Your task to perform on an android device: Check the news Image 0: 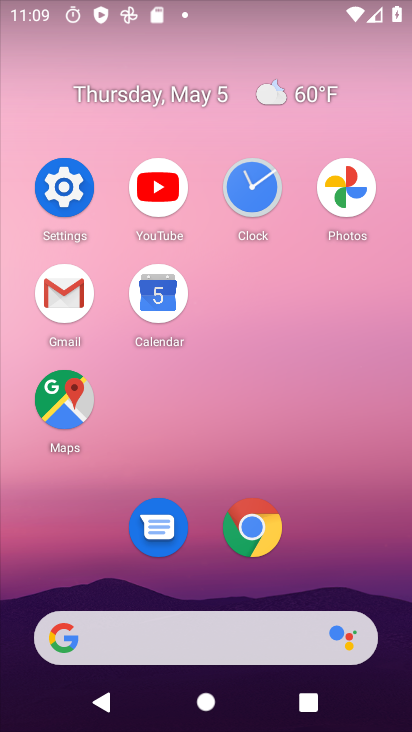
Step 0: drag from (345, 596) to (331, 111)
Your task to perform on an android device: Check the news Image 1: 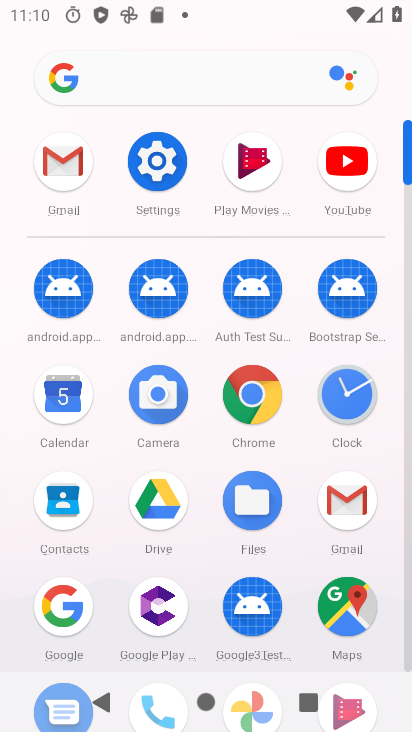
Step 1: click (74, 617)
Your task to perform on an android device: Check the news Image 2: 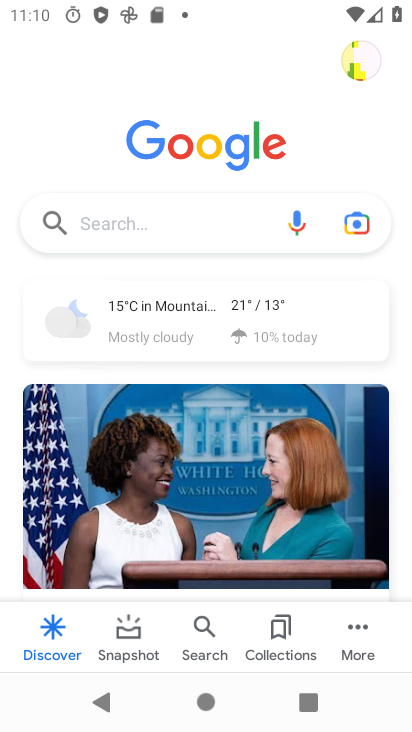
Step 2: click (156, 220)
Your task to perform on an android device: Check the news Image 3: 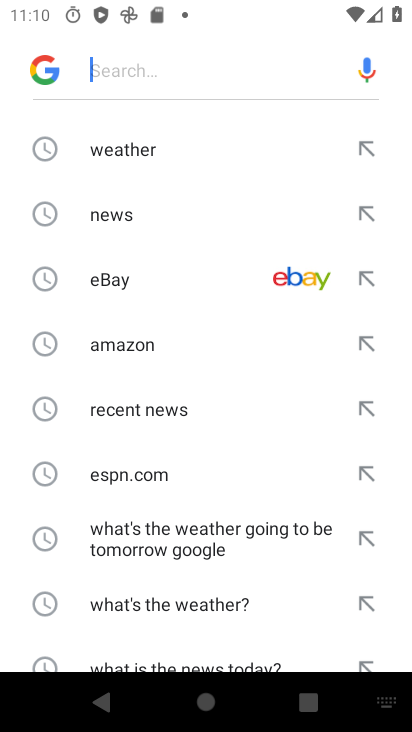
Step 3: click (122, 226)
Your task to perform on an android device: Check the news Image 4: 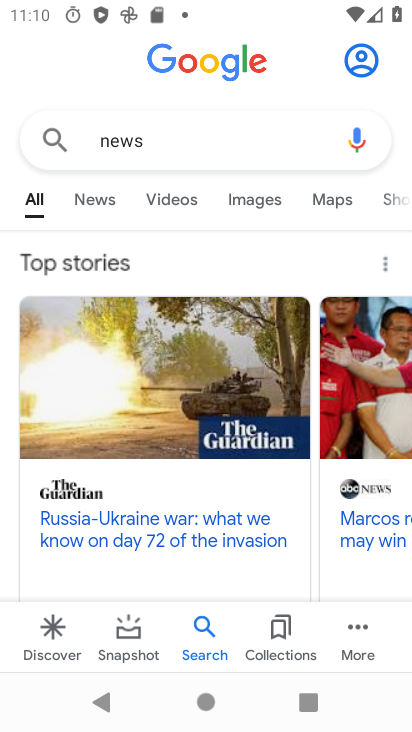
Step 4: task complete